Your task to perform on an android device: delete a single message in the gmail app Image 0: 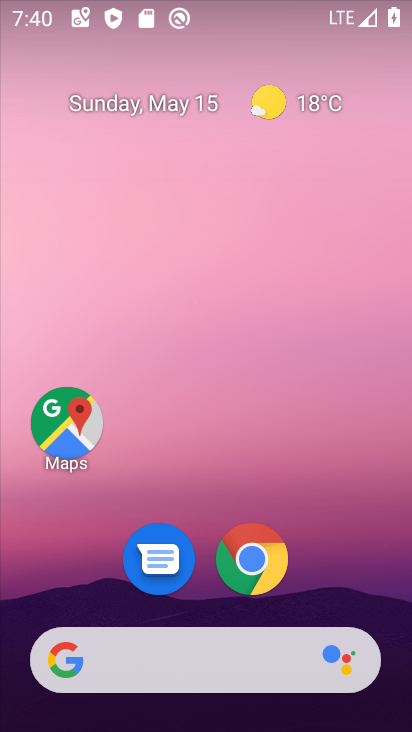
Step 0: drag from (310, 455) to (214, 59)
Your task to perform on an android device: delete a single message in the gmail app Image 1: 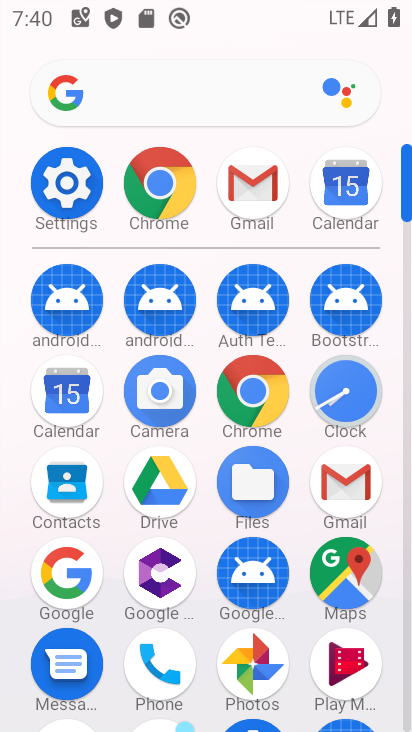
Step 1: click (335, 497)
Your task to perform on an android device: delete a single message in the gmail app Image 2: 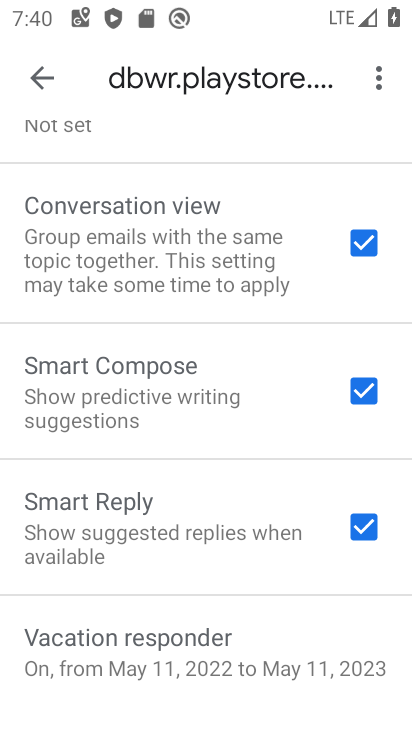
Step 2: drag from (223, 189) to (181, 724)
Your task to perform on an android device: delete a single message in the gmail app Image 3: 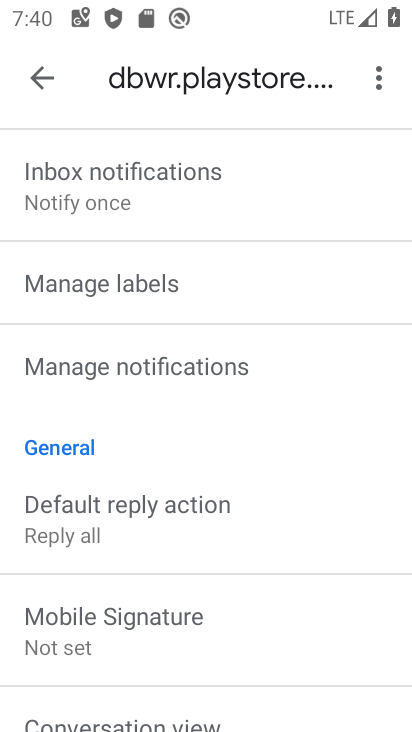
Step 3: click (39, 84)
Your task to perform on an android device: delete a single message in the gmail app Image 4: 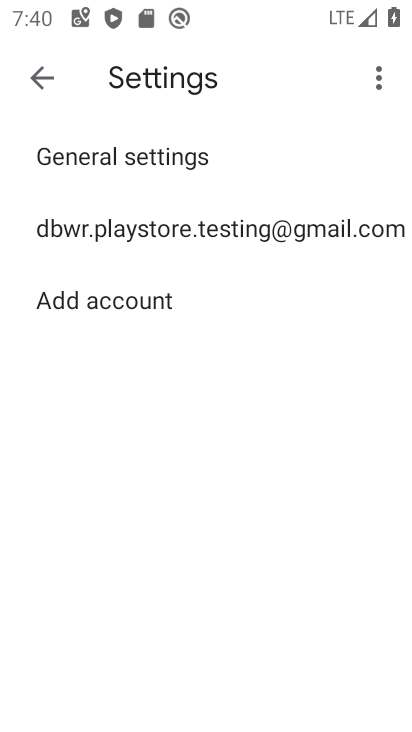
Step 4: click (42, 73)
Your task to perform on an android device: delete a single message in the gmail app Image 5: 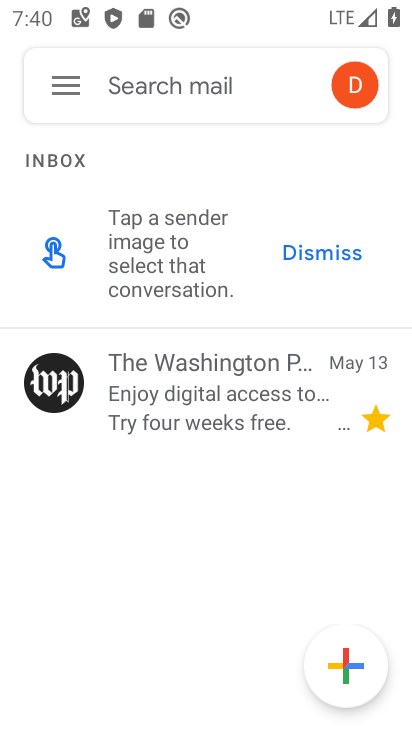
Step 5: click (59, 79)
Your task to perform on an android device: delete a single message in the gmail app Image 6: 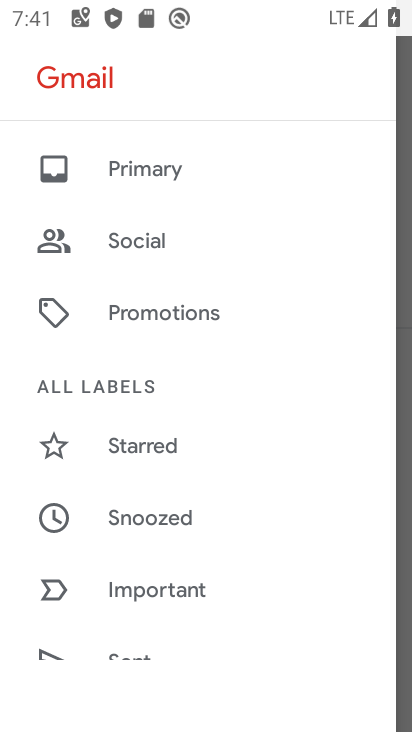
Step 6: drag from (240, 618) to (217, 365)
Your task to perform on an android device: delete a single message in the gmail app Image 7: 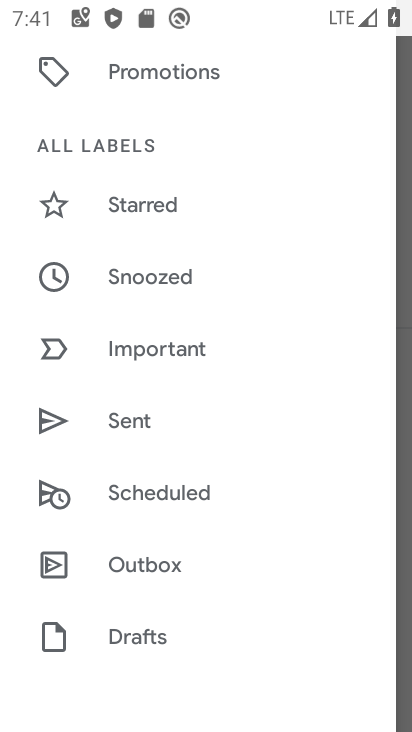
Step 7: drag from (233, 511) to (233, 220)
Your task to perform on an android device: delete a single message in the gmail app Image 8: 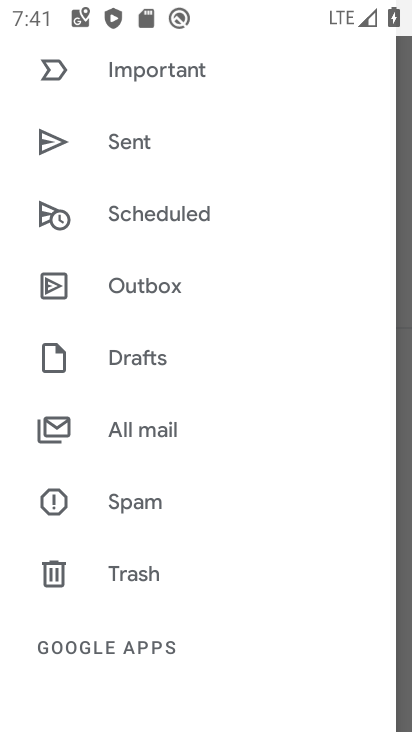
Step 8: click (149, 435)
Your task to perform on an android device: delete a single message in the gmail app Image 9: 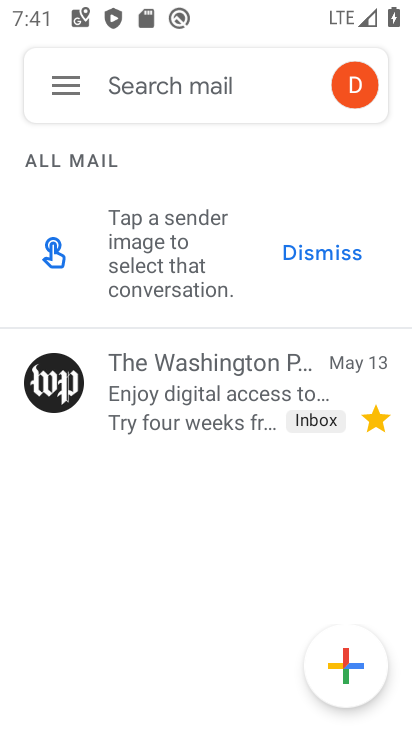
Step 9: click (173, 384)
Your task to perform on an android device: delete a single message in the gmail app Image 10: 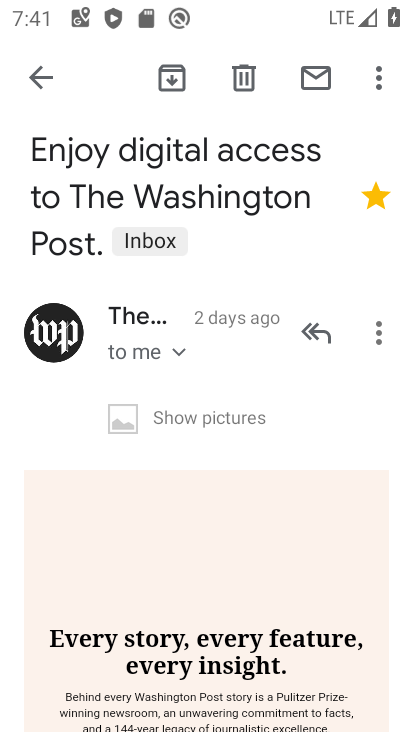
Step 10: click (244, 72)
Your task to perform on an android device: delete a single message in the gmail app Image 11: 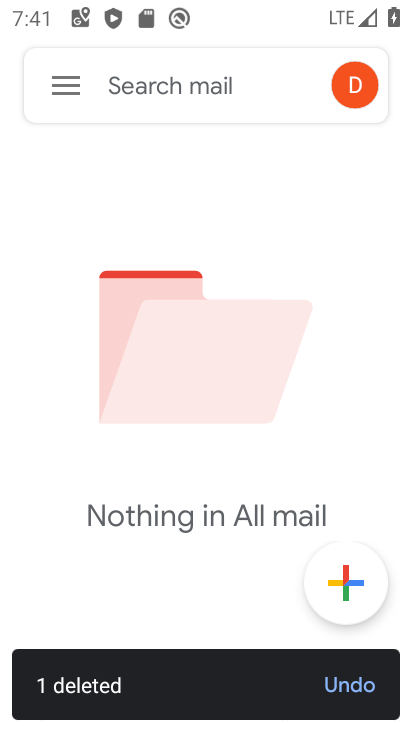
Step 11: task complete